Your task to perform on an android device: move a message to another label in the gmail app Image 0: 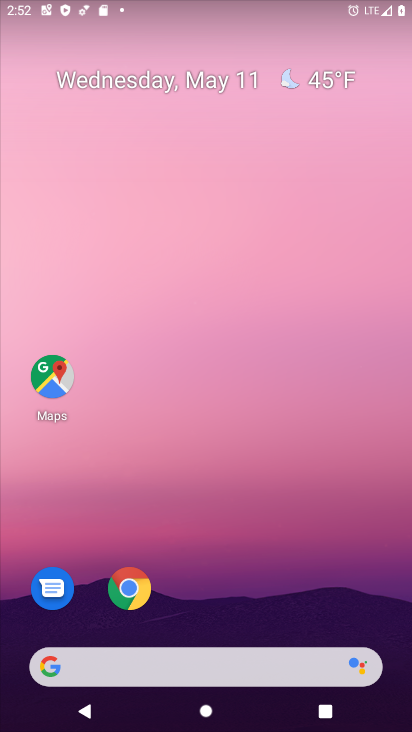
Step 0: drag from (207, 624) to (212, 186)
Your task to perform on an android device: move a message to another label in the gmail app Image 1: 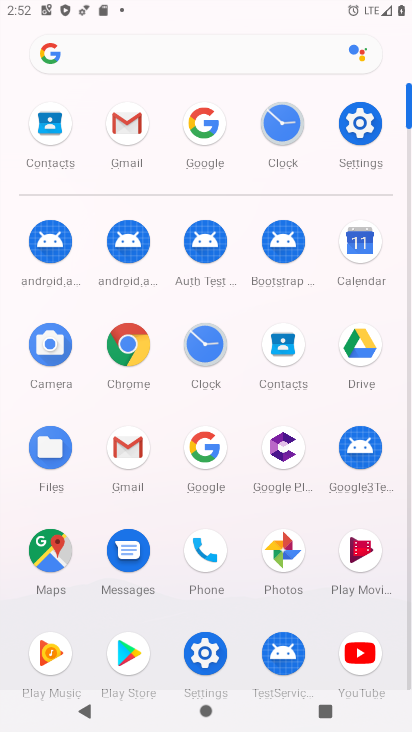
Step 1: click (143, 450)
Your task to perform on an android device: move a message to another label in the gmail app Image 2: 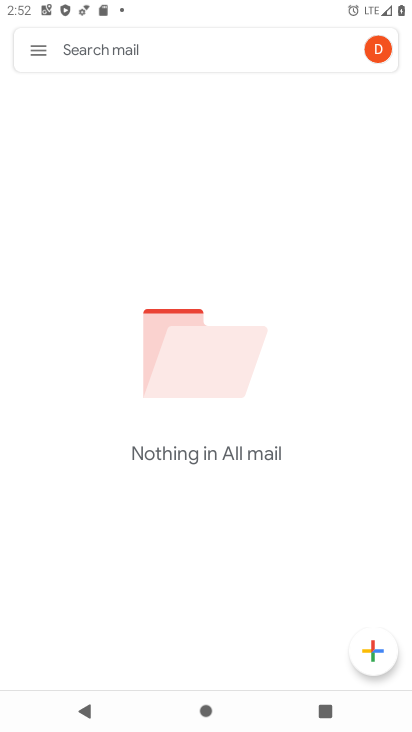
Step 2: click (47, 47)
Your task to perform on an android device: move a message to another label in the gmail app Image 3: 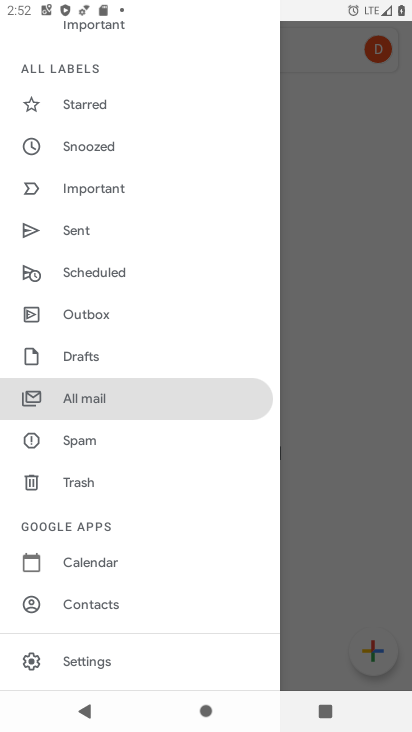
Step 3: click (120, 387)
Your task to perform on an android device: move a message to another label in the gmail app Image 4: 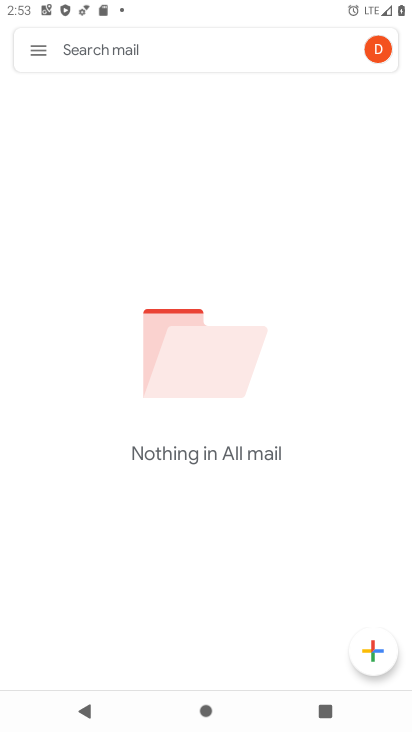
Step 4: task complete